Your task to perform on an android device: Open wifi settings Image 0: 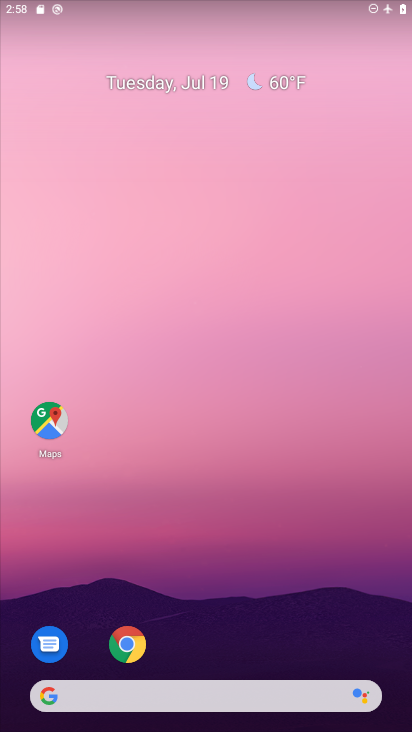
Step 0: drag from (203, 668) to (157, 135)
Your task to perform on an android device: Open wifi settings Image 1: 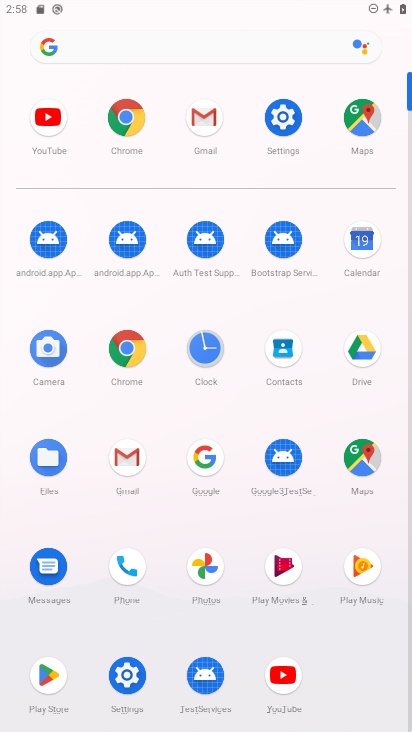
Step 1: click (125, 683)
Your task to perform on an android device: Open wifi settings Image 2: 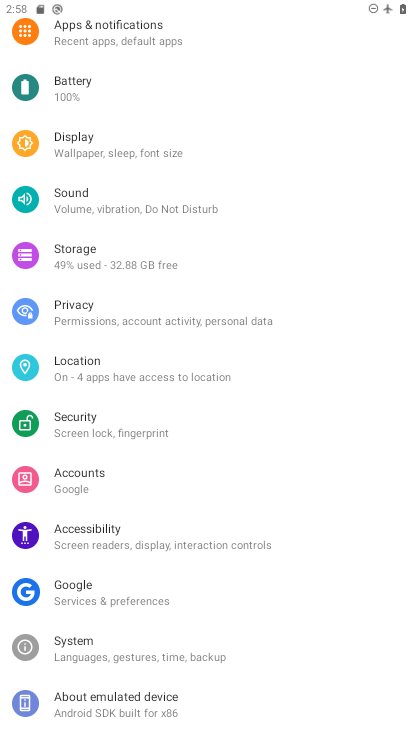
Step 2: drag from (33, 181) to (104, 693)
Your task to perform on an android device: Open wifi settings Image 3: 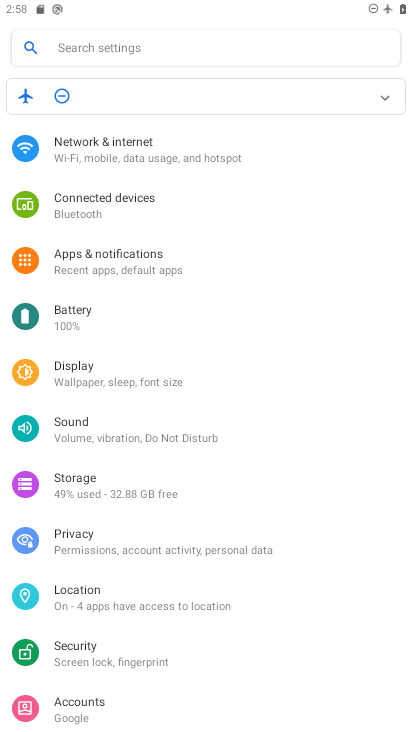
Step 3: click (103, 157)
Your task to perform on an android device: Open wifi settings Image 4: 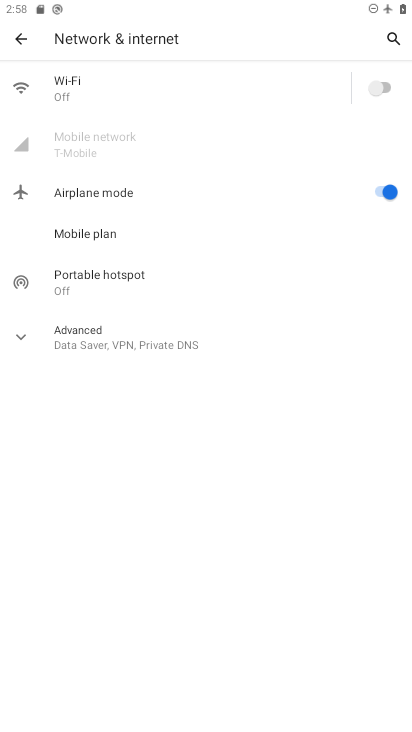
Step 4: click (116, 104)
Your task to perform on an android device: Open wifi settings Image 5: 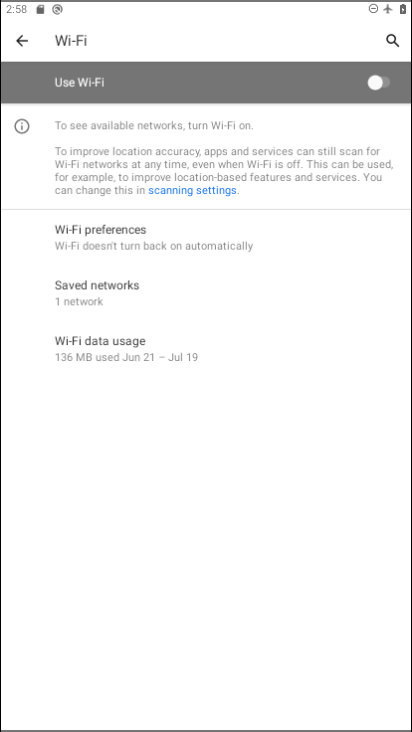
Step 5: task complete